Your task to perform on an android device: Open calendar and show me the first week of next month Image 0: 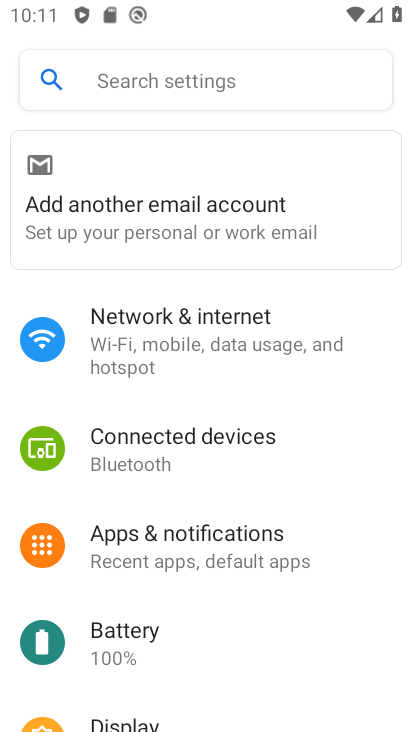
Step 0: press back button
Your task to perform on an android device: Open calendar and show me the first week of next month Image 1: 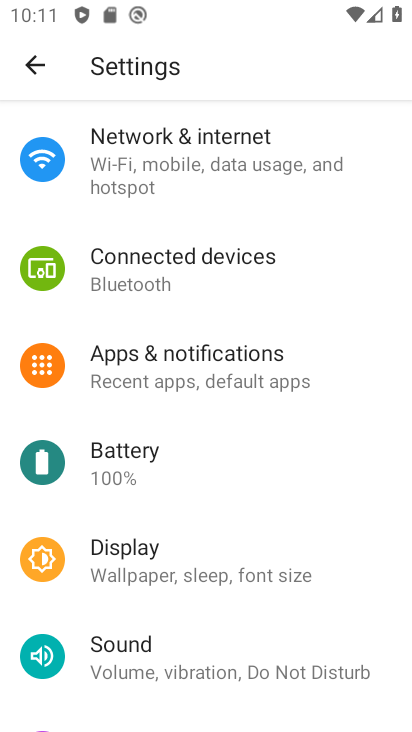
Step 1: press back button
Your task to perform on an android device: Open calendar and show me the first week of next month Image 2: 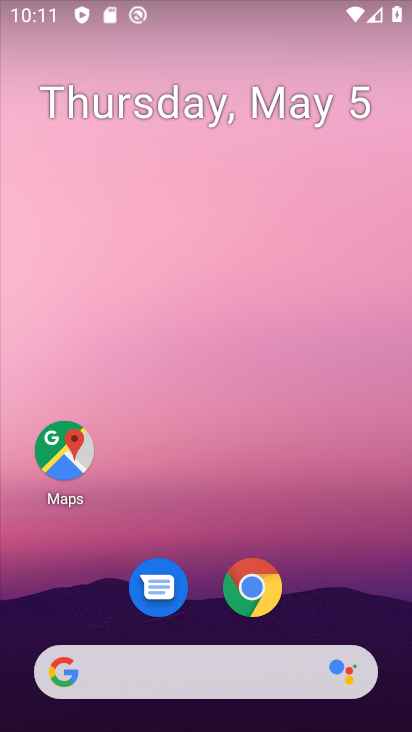
Step 2: drag from (316, 519) to (237, 7)
Your task to perform on an android device: Open calendar and show me the first week of next month Image 3: 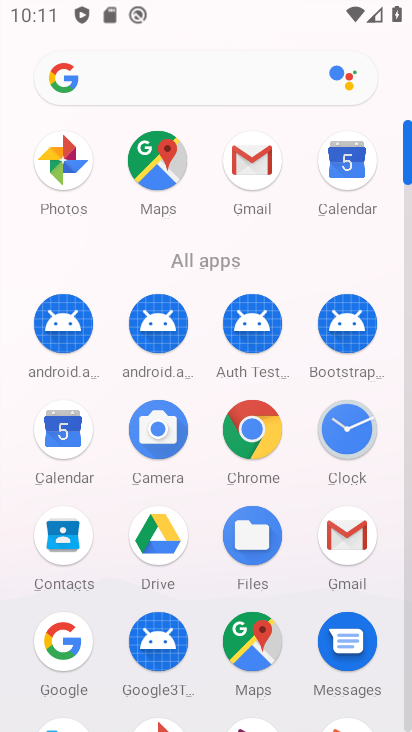
Step 3: drag from (6, 508) to (6, 247)
Your task to perform on an android device: Open calendar and show me the first week of next month Image 4: 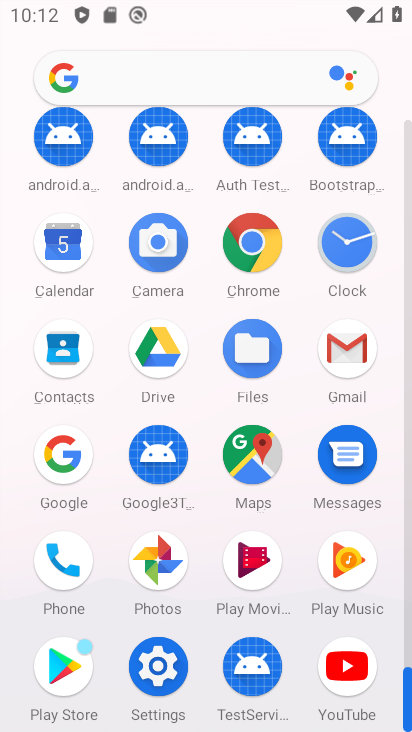
Step 4: click (59, 245)
Your task to perform on an android device: Open calendar and show me the first week of next month Image 5: 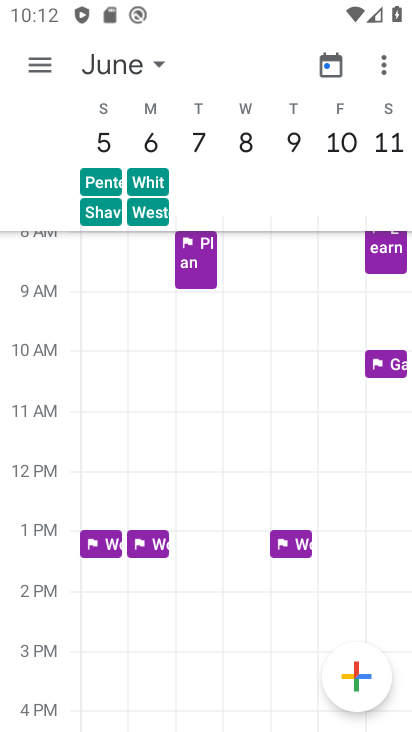
Step 5: click (333, 60)
Your task to perform on an android device: Open calendar and show me the first week of next month Image 6: 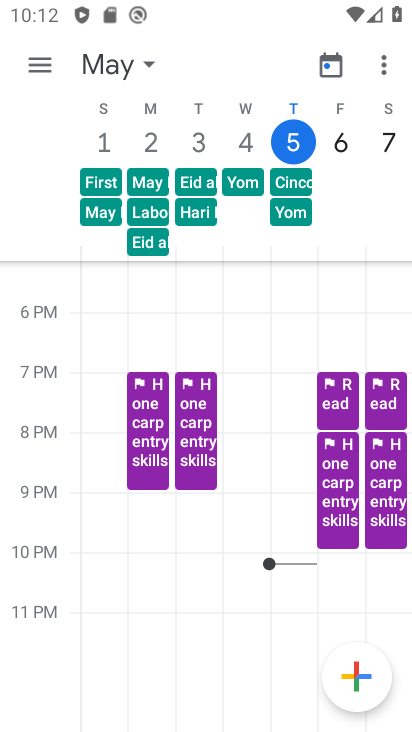
Step 6: click (108, 64)
Your task to perform on an android device: Open calendar and show me the first week of next month Image 7: 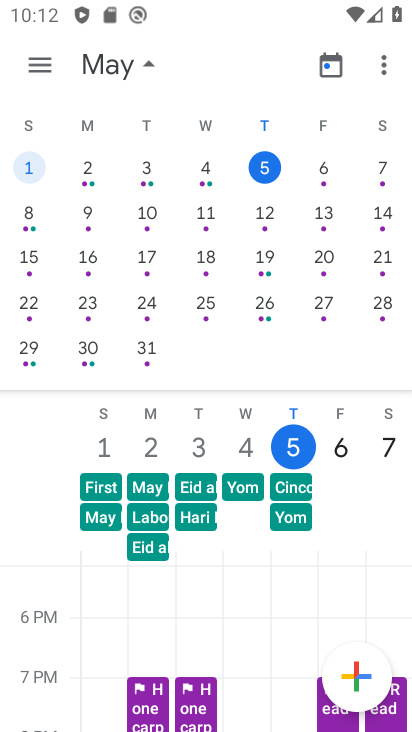
Step 7: drag from (356, 267) to (8, 241)
Your task to perform on an android device: Open calendar and show me the first week of next month Image 8: 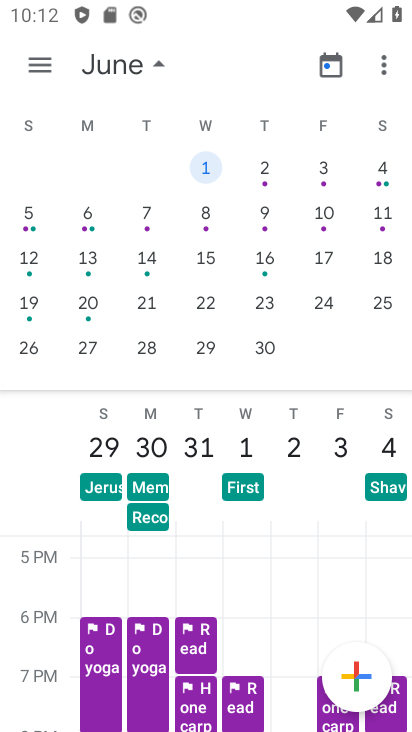
Step 8: click (196, 160)
Your task to perform on an android device: Open calendar and show me the first week of next month Image 9: 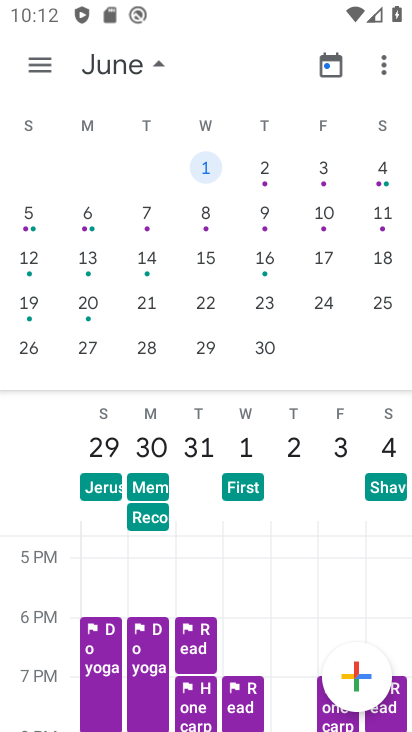
Step 9: click (29, 56)
Your task to perform on an android device: Open calendar and show me the first week of next month Image 10: 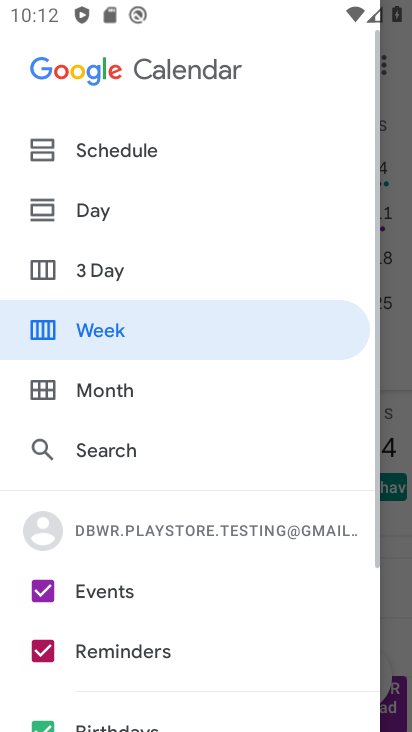
Step 10: click (134, 325)
Your task to perform on an android device: Open calendar and show me the first week of next month Image 11: 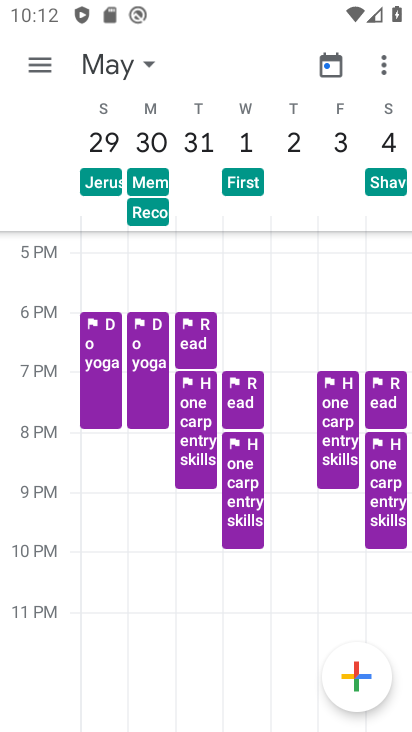
Step 11: task complete